Your task to perform on an android device: change the clock style Image 0: 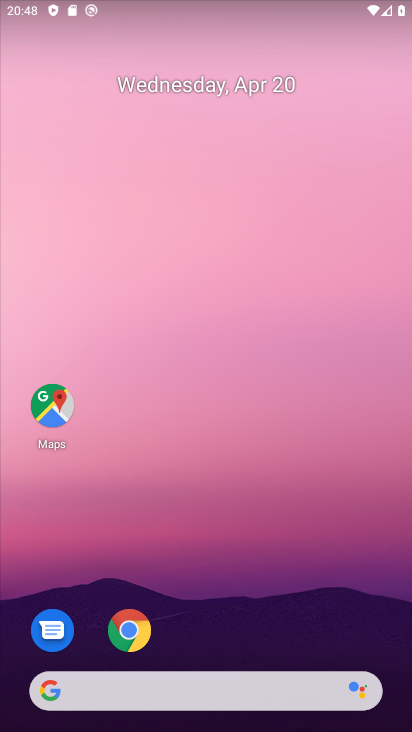
Step 0: drag from (222, 646) to (178, 190)
Your task to perform on an android device: change the clock style Image 1: 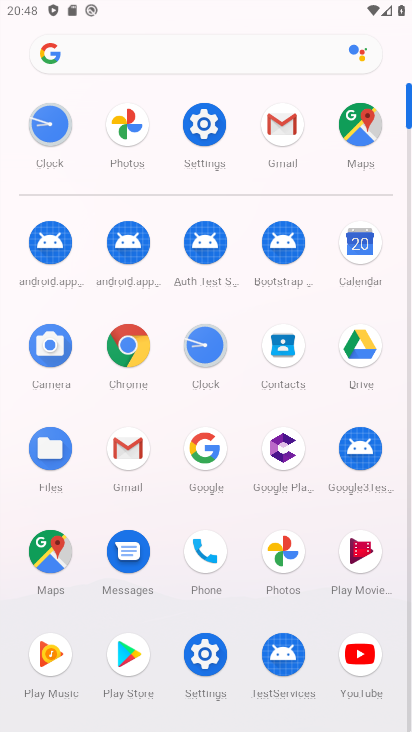
Step 1: click (197, 347)
Your task to perform on an android device: change the clock style Image 2: 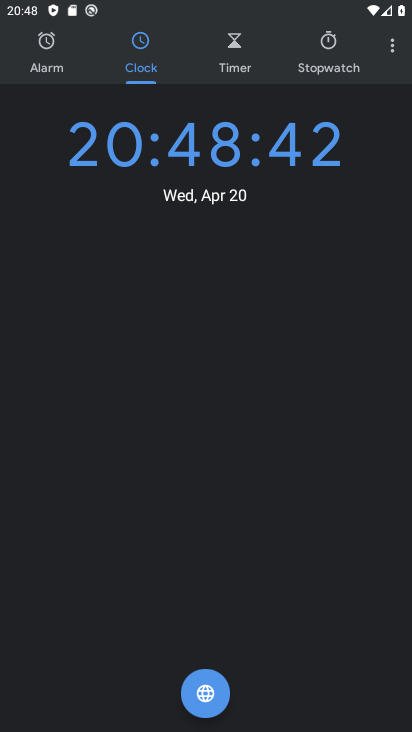
Step 2: click (391, 47)
Your task to perform on an android device: change the clock style Image 3: 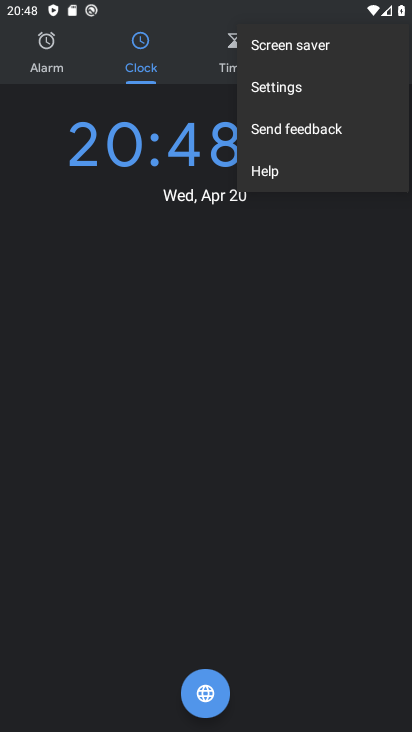
Step 3: click (289, 87)
Your task to perform on an android device: change the clock style Image 4: 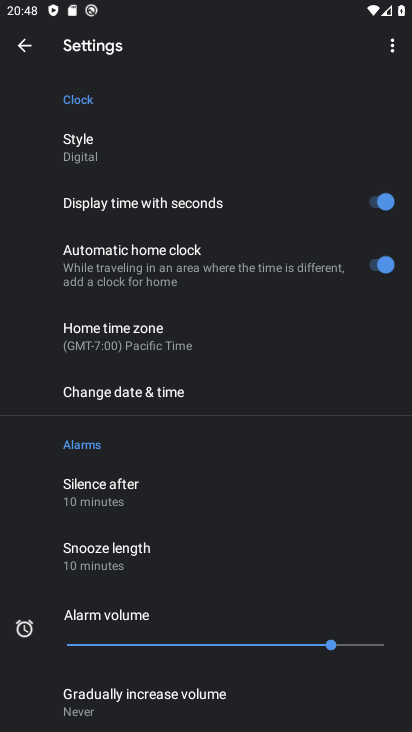
Step 4: click (78, 147)
Your task to perform on an android device: change the clock style Image 5: 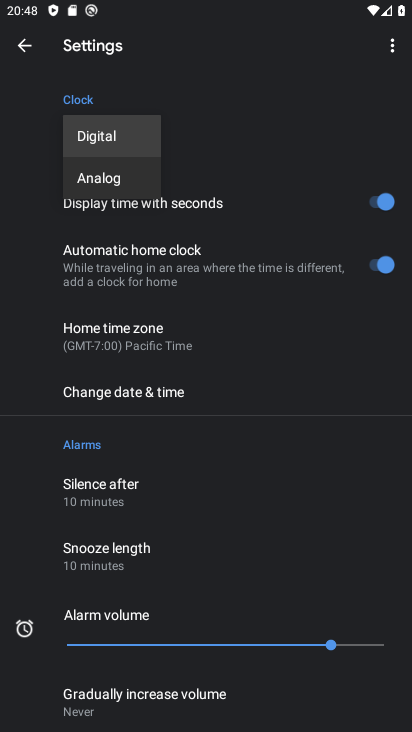
Step 5: click (116, 186)
Your task to perform on an android device: change the clock style Image 6: 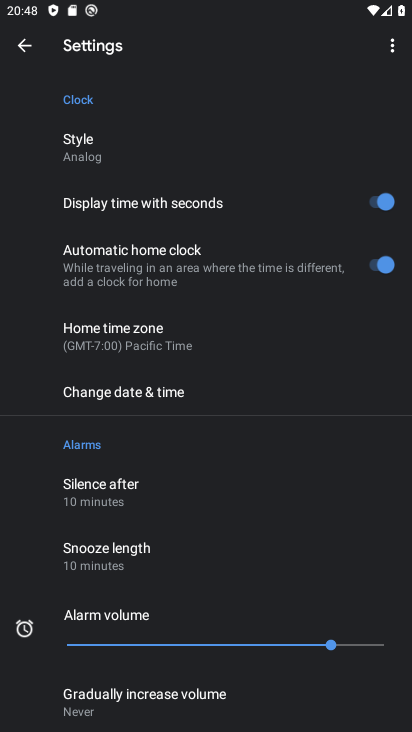
Step 6: task complete